Your task to perform on an android device: Open sound settings Image 0: 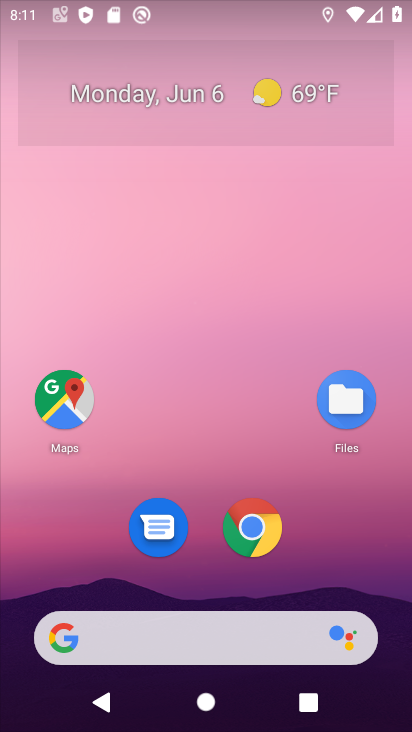
Step 0: drag from (243, 583) to (395, 4)
Your task to perform on an android device: Open sound settings Image 1: 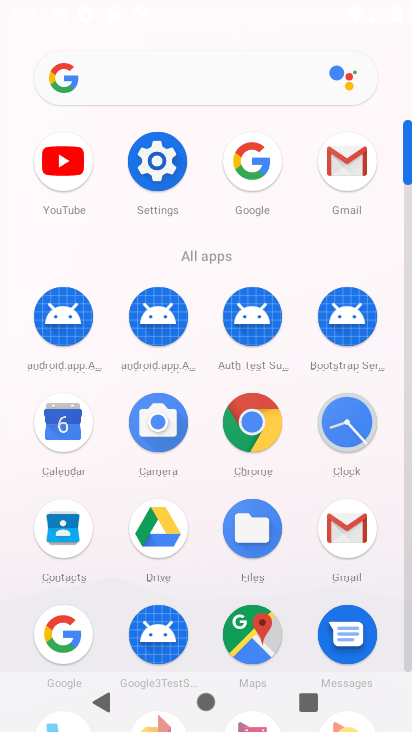
Step 1: click (157, 159)
Your task to perform on an android device: Open sound settings Image 2: 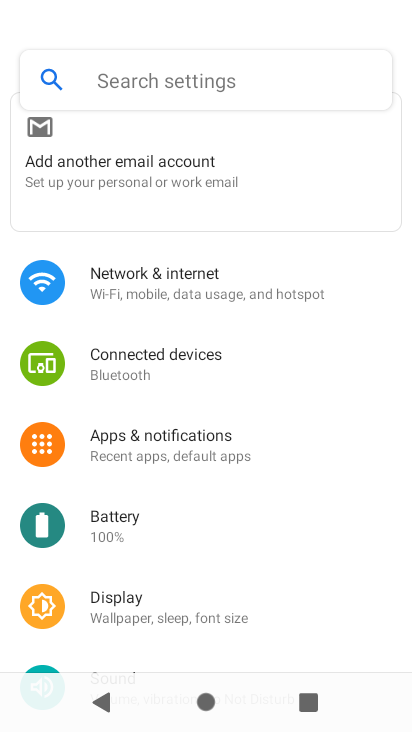
Step 2: drag from (199, 591) to (215, 334)
Your task to perform on an android device: Open sound settings Image 3: 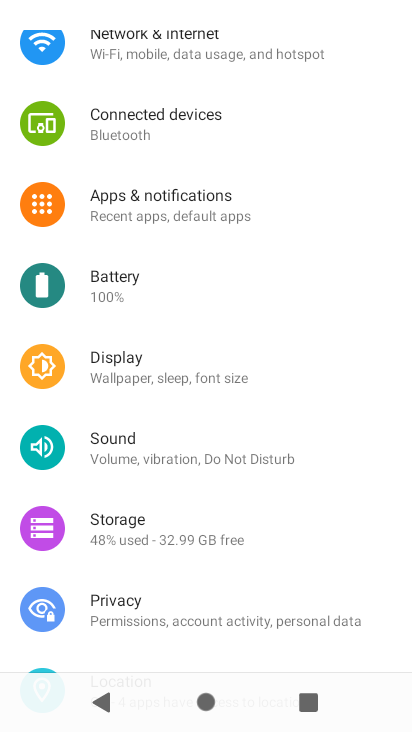
Step 3: click (170, 437)
Your task to perform on an android device: Open sound settings Image 4: 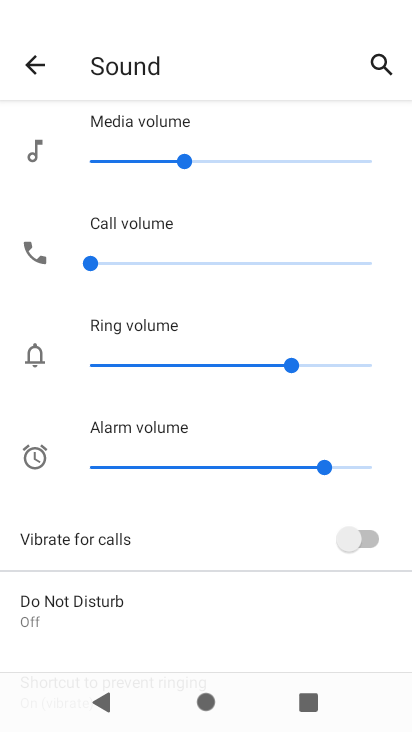
Step 4: task complete